Your task to perform on an android device: Go to Yahoo.com Image 0: 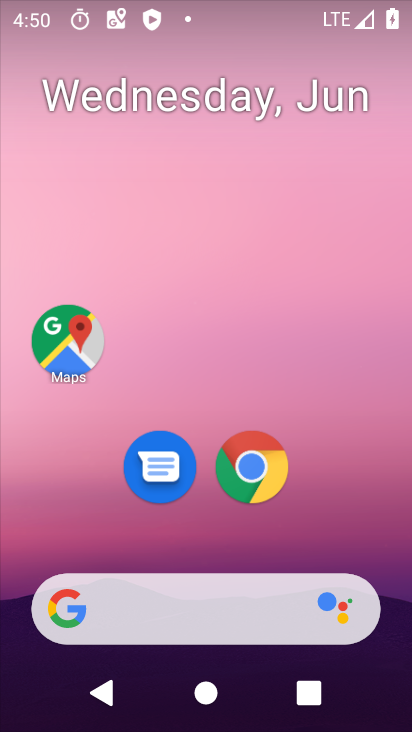
Step 0: click (269, 480)
Your task to perform on an android device: Go to Yahoo.com Image 1: 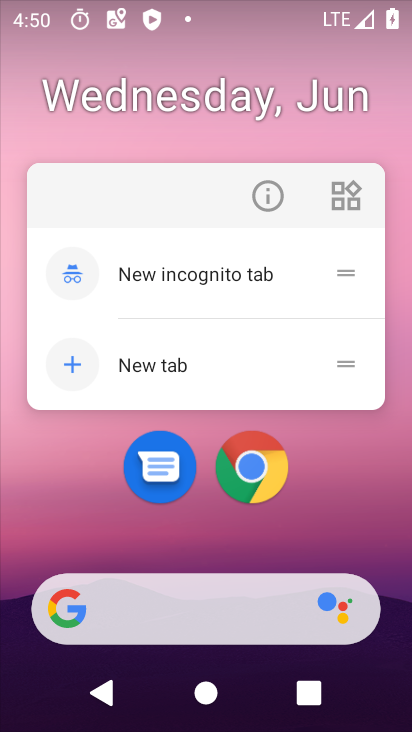
Step 1: click (259, 472)
Your task to perform on an android device: Go to Yahoo.com Image 2: 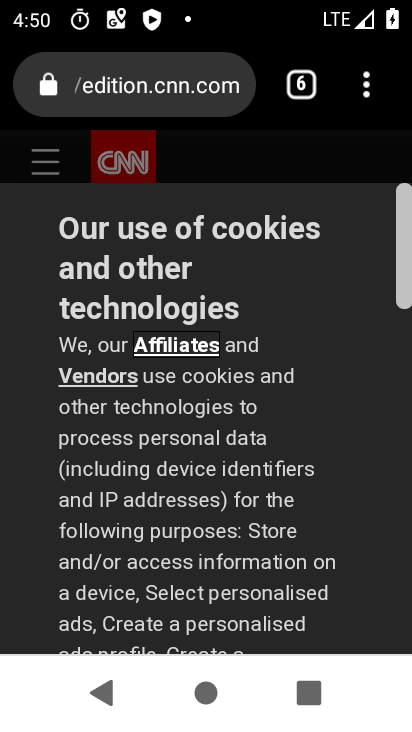
Step 2: click (306, 78)
Your task to perform on an android device: Go to Yahoo.com Image 3: 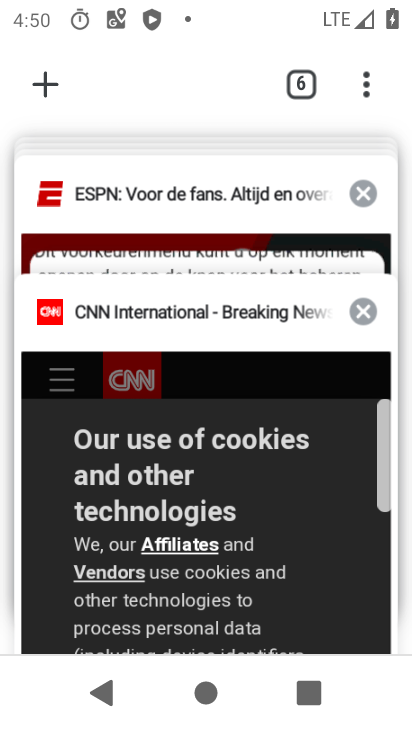
Step 3: drag from (244, 176) to (190, 649)
Your task to perform on an android device: Go to Yahoo.com Image 4: 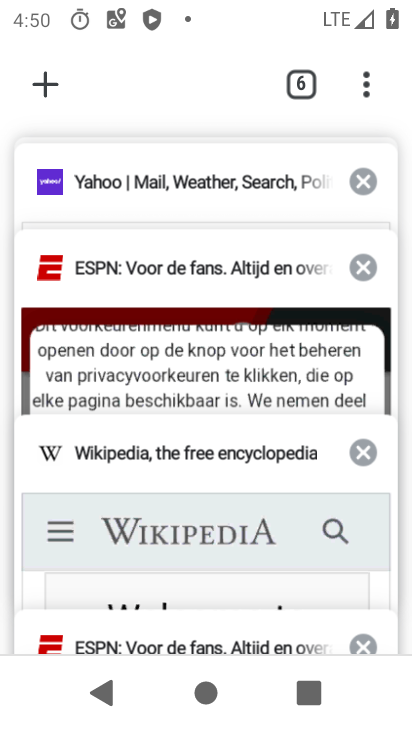
Step 4: click (158, 199)
Your task to perform on an android device: Go to Yahoo.com Image 5: 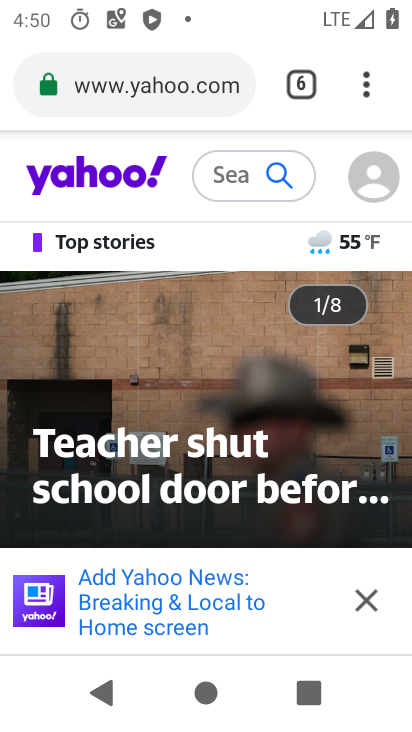
Step 5: task complete